Your task to perform on an android device: Open the calendar app, open the side menu, and click the "Day" option Image 0: 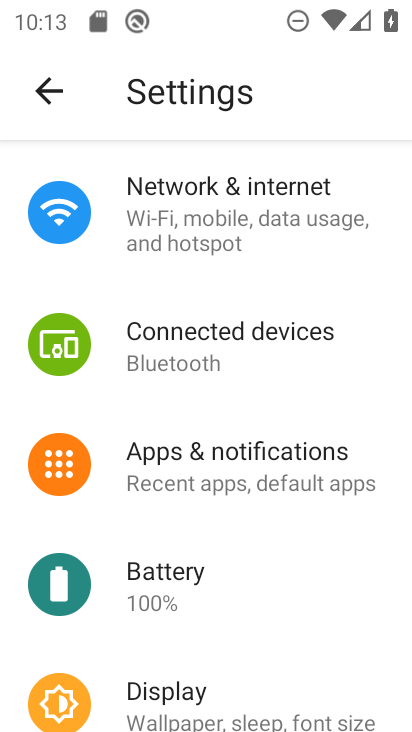
Step 0: press home button
Your task to perform on an android device: Open the calendar app, open the side menu, and click the "Day" option Image 1: 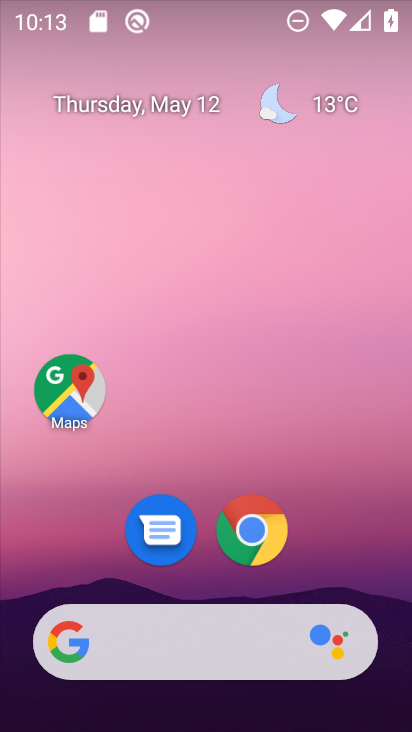
Step 1: drag from (342, 525) to (319, 46)
Your task to perform on an android device: Open the calendar app, open the side menu, and click the "Day" option Image 2: 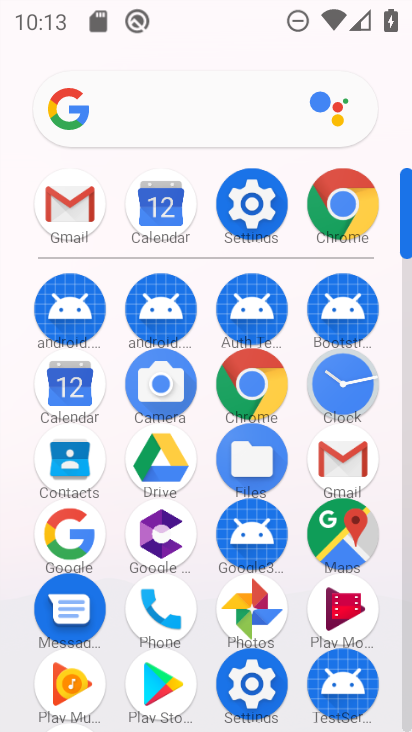
Step 2: click (170, 215)
Your task to perform on an android device: Open the calendar app, open the side menu, and click the "Day" option Image 3: 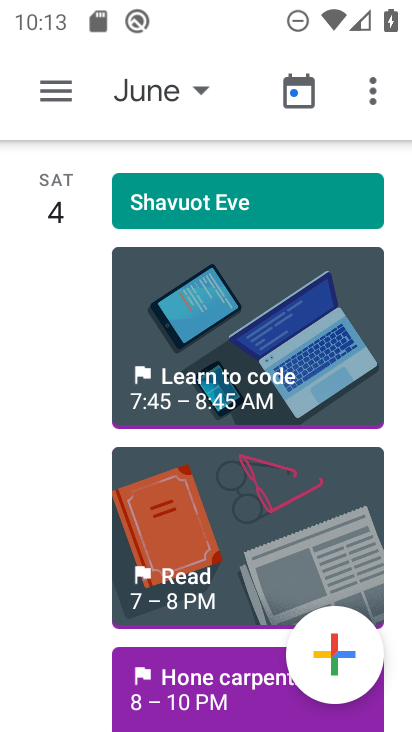
Step 3: click (59, 101)
Your task to perform on an android device: Open the calendar app, open the side menu, and click the "Day" option Image 4: 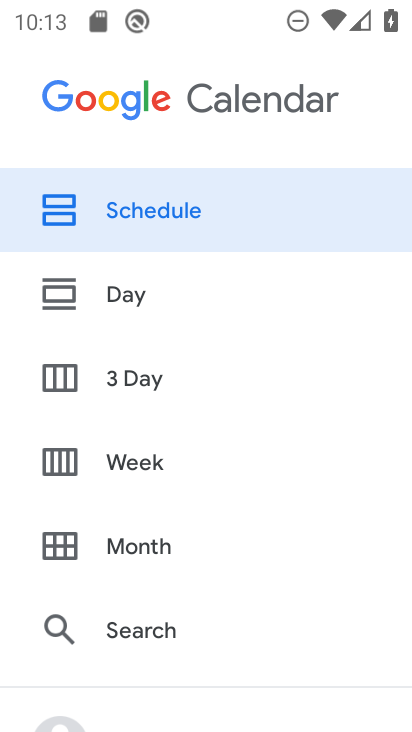
Step 4: click (117, 310)
Your task to perform on an android device: Open the calendar app, open the side menu, and click the "Day" option Image 5: 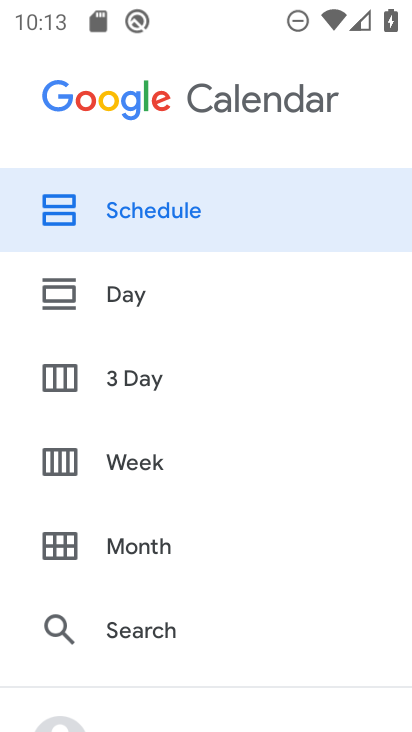
Step 5: click (126, 290)
Your task to perform on an android device: Open the calendar app, open the side menu, and click the "Day" option Image 6: 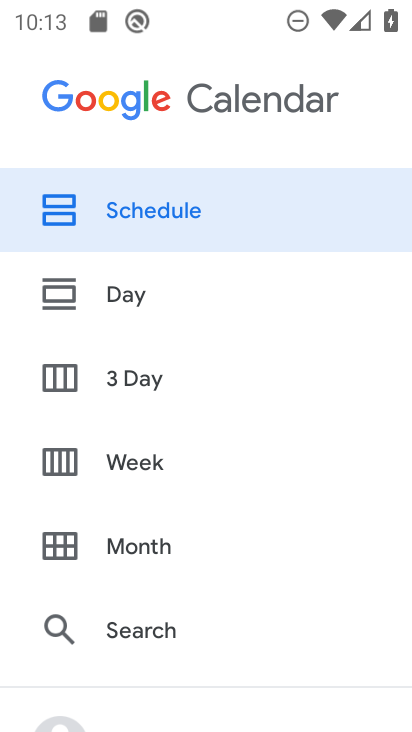
Step 6: click (127, 291)
Your task to perform on an android device: Open the calendar app, open the side menu, and click the "Day" option Image 7: 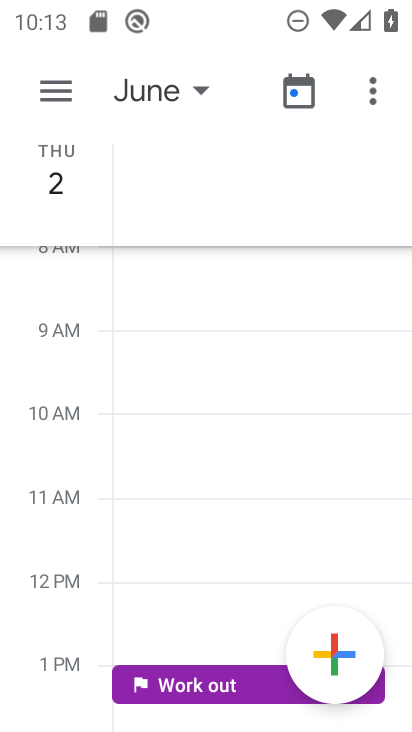
Step 7: task complete